Your task to perform on an android device: Play the last video I watched on Youtube Image 0: 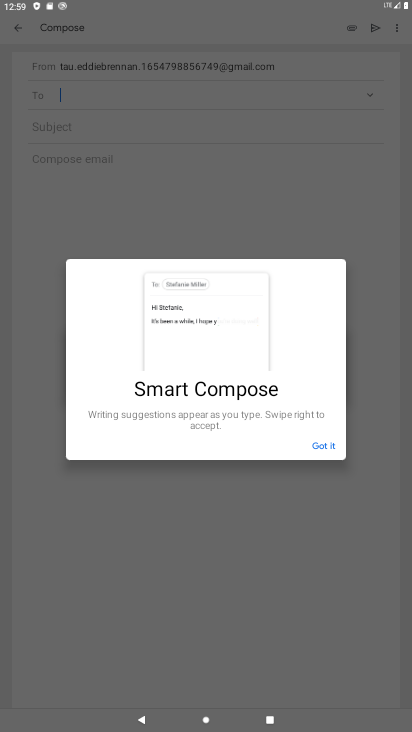
Step 0: press home button
Your task to perform on an android device: Play the last video I watched on Youtube Image 1: 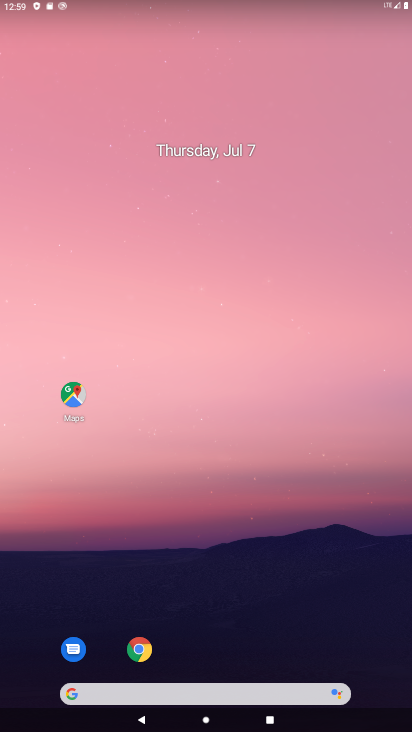
Step 1: press home button
Your task to perform on an android device: Play the last video I watched on Youtube Image 2: 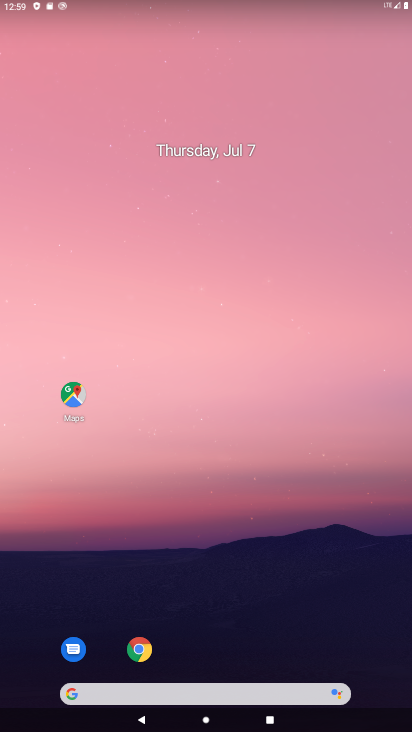
Step 2: drag from (314, 632) to (367, 28)
Your task to perform on an android device: Play the last video I watched on Youtube Image 3: 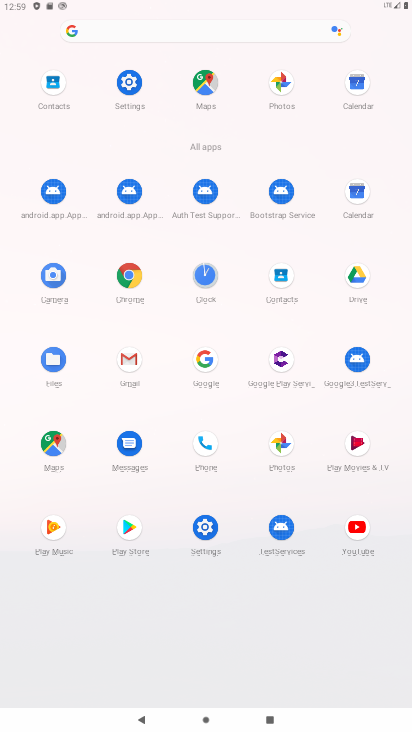
Step 3: click (349, 517)
Your task to perform on an android device: Play the last video I watched on Youtube Image 4: 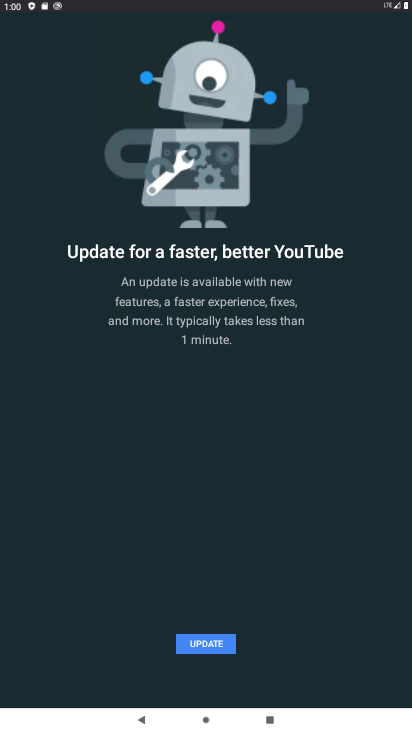
Step 4: click (216, 644)
Your task to perform on an android device: Play the last video I watched on Youtube Image 5: 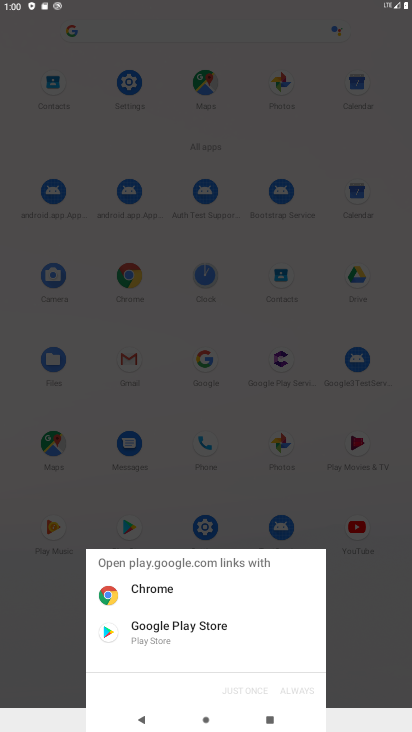
Step 5: click (188, 626)
Your task to perform on an android device: Play the last video I watched on Youtube Image 6: 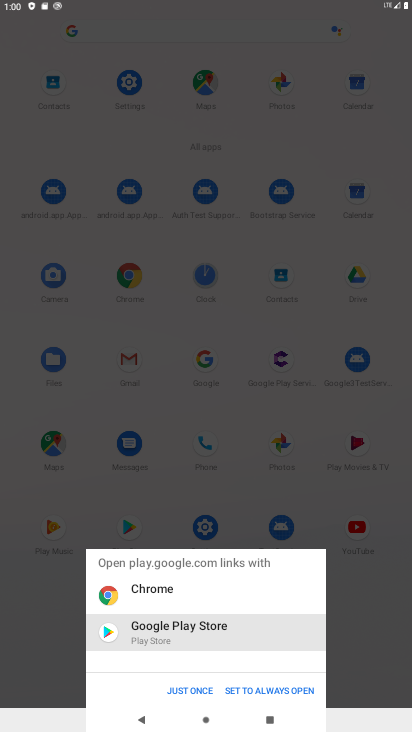
Step 6: click (184, 627)
Your task to perform on an android device: Play the last video I watched on Youtube Image 7: 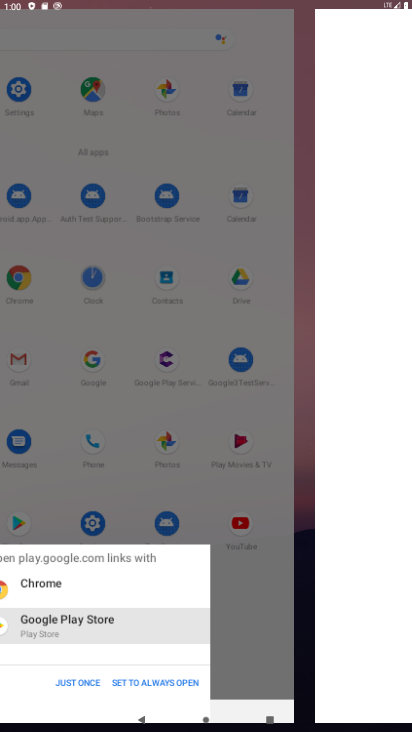
Step 7: click (184, 684)
Your task to perform on an android device: Play the last video I watched on Youtube Image 8: 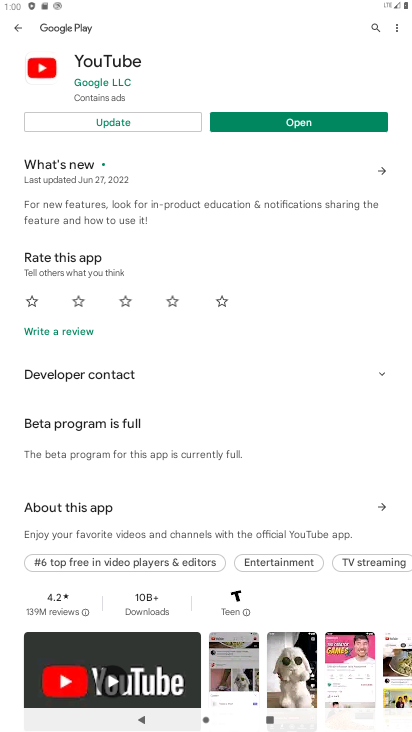
Step 8: click (135, 129)
Your task to perform on an android device: Play the last video I watched on Youtube Image 9: 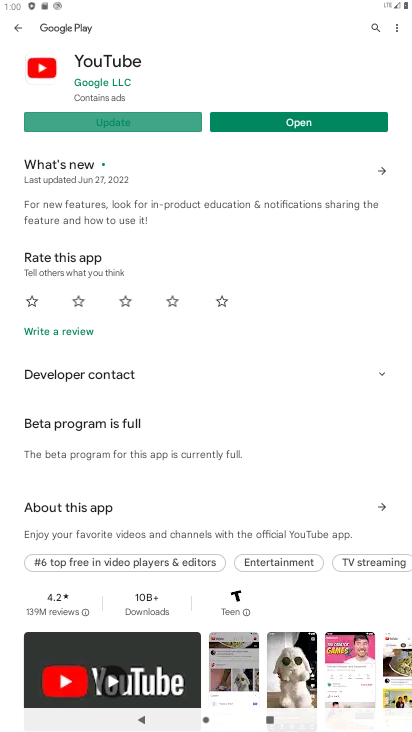
Step 9: click (136, 126)
Your task to perform on an android device: Play the last video I watched on Youtube Image 10: 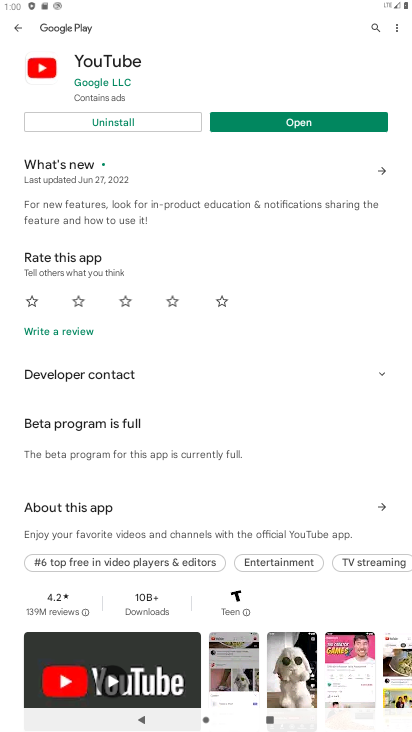
Step 10: click (276, 118)
Your task to perform on an android device: Play the last video I watched on Youtube Image 11: 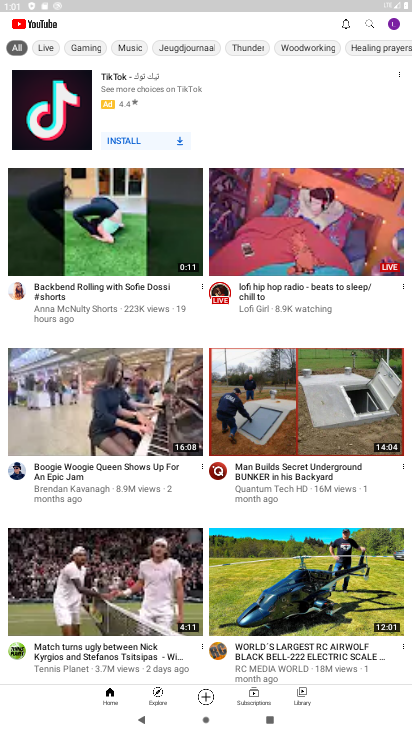
Step 11: click (304, 694)
Your task to perform on an android device: Play the last video I watched on Youtube Image 12: 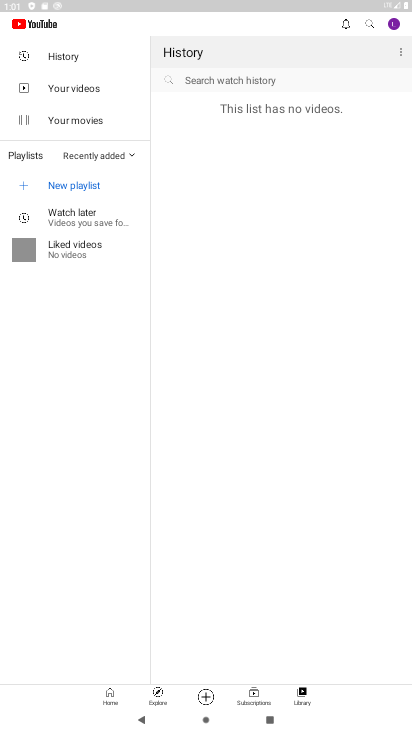
Step 12: click (67, 54)
Your task to perform on an android device: Play the last video I watched on Youtube Image 13: 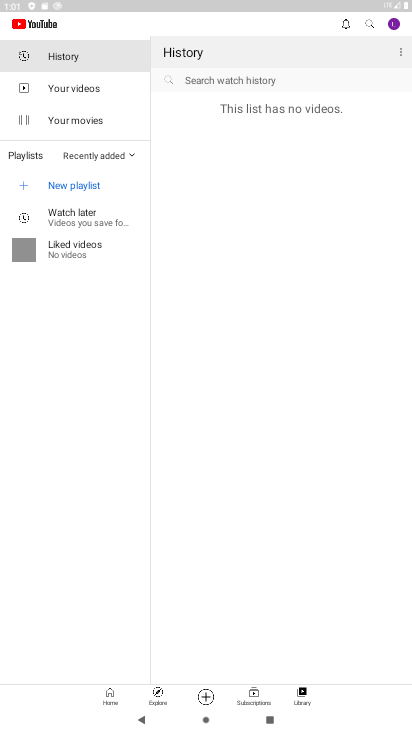
Step 13: task complete